Your task to perform on an android device: show emergency info Image 0: 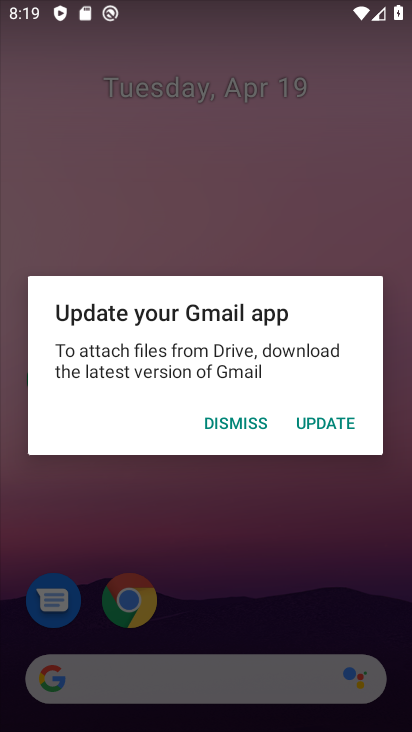
Step 0: press home button
Your task to perform on an android device: show emergency info Image 1: 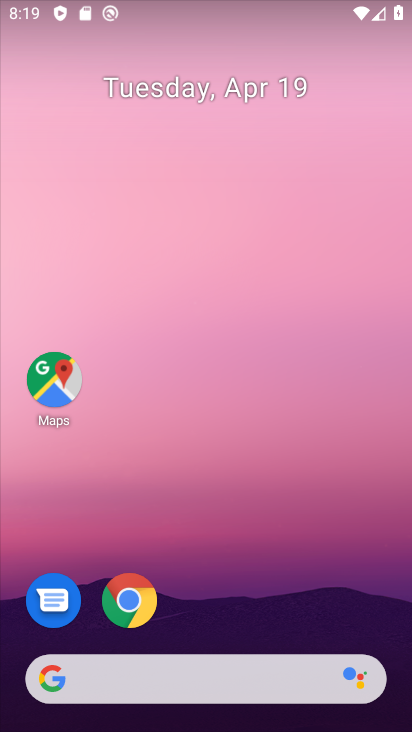
Step 1: drag from (342, 555) to (359, 126)
Your task to perform on an android device: show emergency info Image 2: 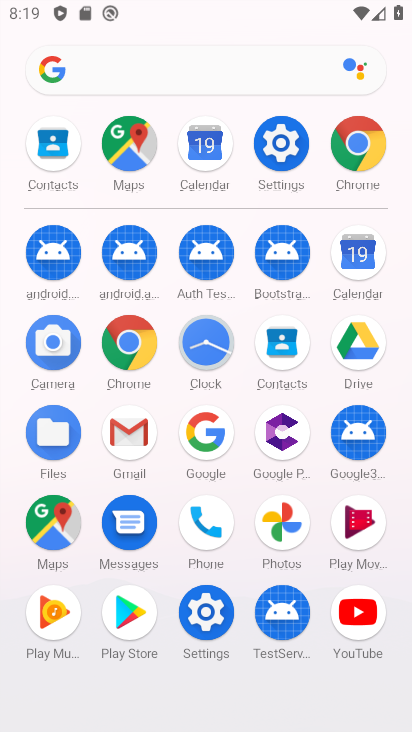
Step 2: click (285, 151)
Your task to perform on an android device: show emergency info Image 3: 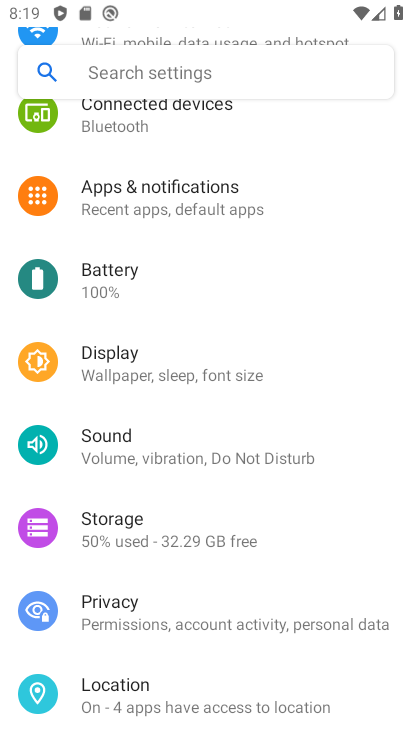
Step 3: drag from (353, 546) to (348, 272)
Your task to perform on an android device: show emergency info Image 4: 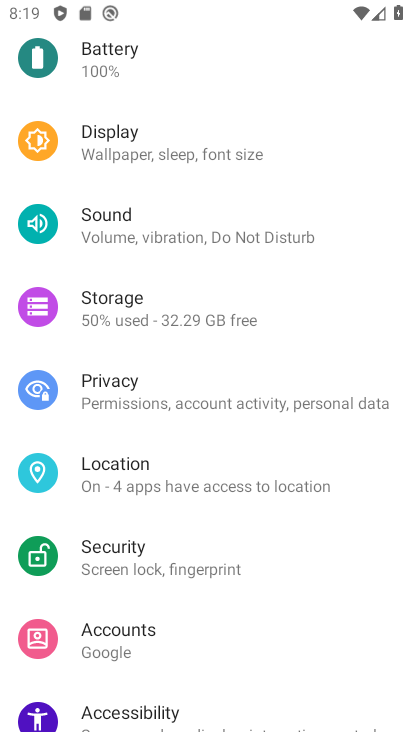
Step 4: drag from (352, 593) to (352, 289)
Your task to perform on an android device: show emergency info Image 5: 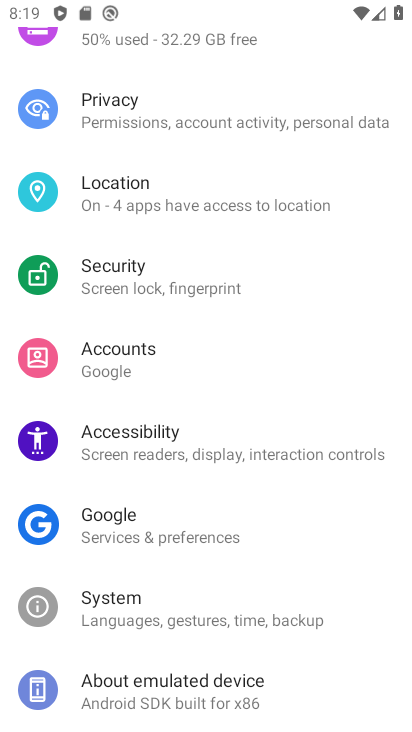
Step 5: drag from (361, 636) to (373, 306)
Your task to perform on an android device: show emergency info Image 6: 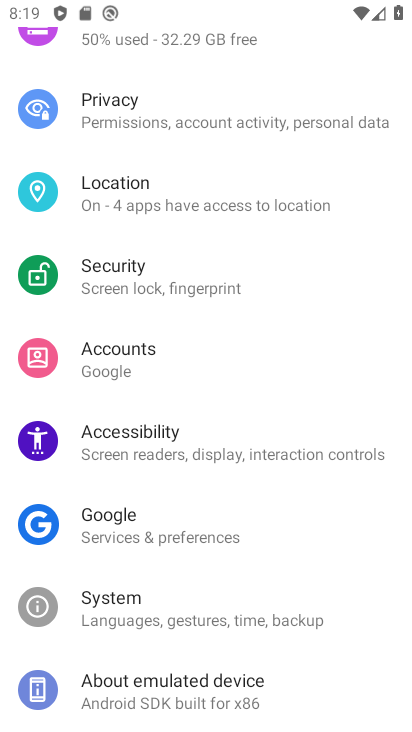
Step 6: drag from (374, 256) to (366, 538)
Your task to perform on an android device: show emergency info Image 7: 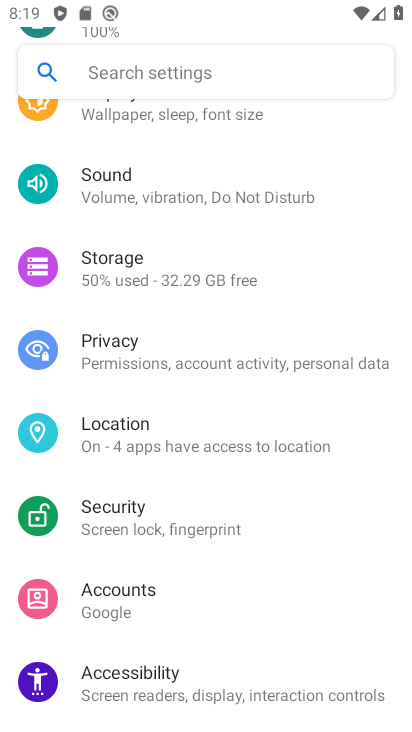
Step 7: drag from (374, 298) to (359, 494)
Your task to perform on an android device: show emergency info Image 8: 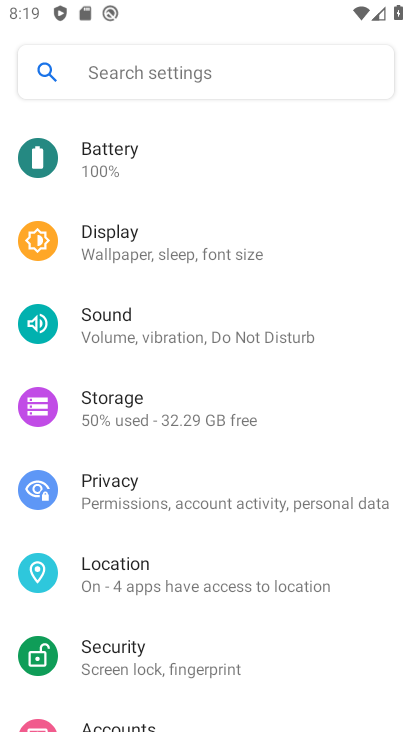
Step 8: drag from (360, 507) to (357, 360)
Your task to perform on an android device: show emergency info Image 9: 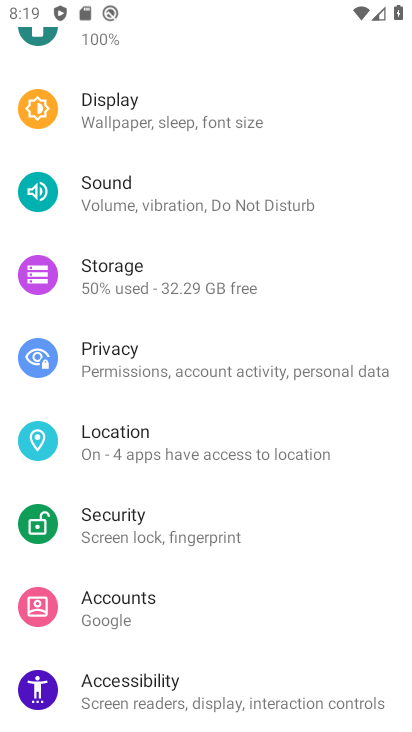
Step 9: drag from (364, 538) to (380, 269)
Your task to perform on an android device: show emergency info Image 10: 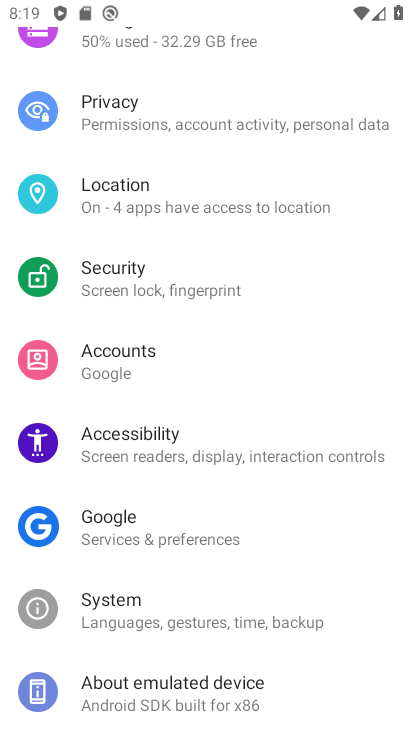
Step 10: drag from (368, 614) to (368, 364)
Your task to perform on an android device: show emergency info Image 11: 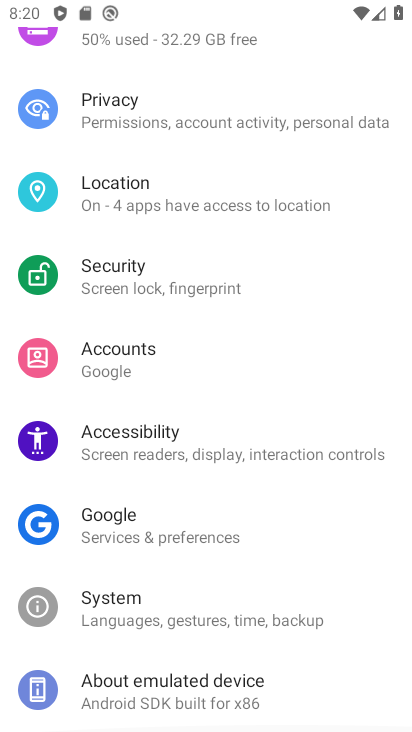
Step 11: click (174, 692)
Your task to perform on an android device: show emergency info Image 12: 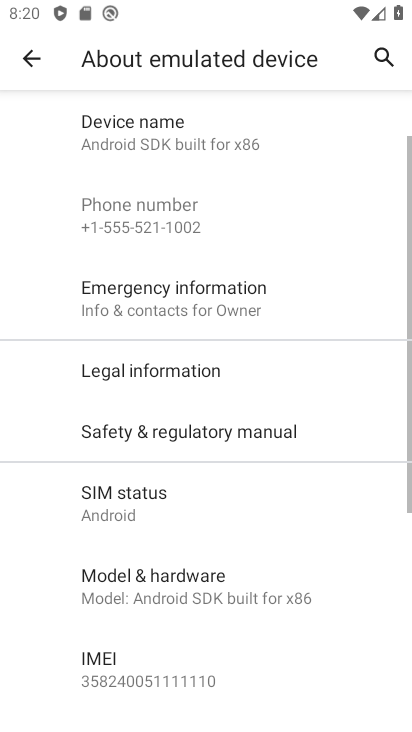
Step 12: click (211, 289)
Your task to perform on an android device: show emergency info Image 13: 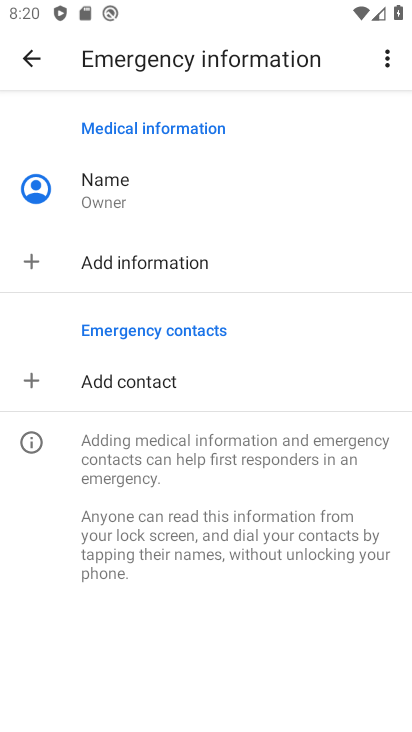
Step 13: task complete